Your task to perform on an android device: Open calendar and show me the third week of next month Image 0: 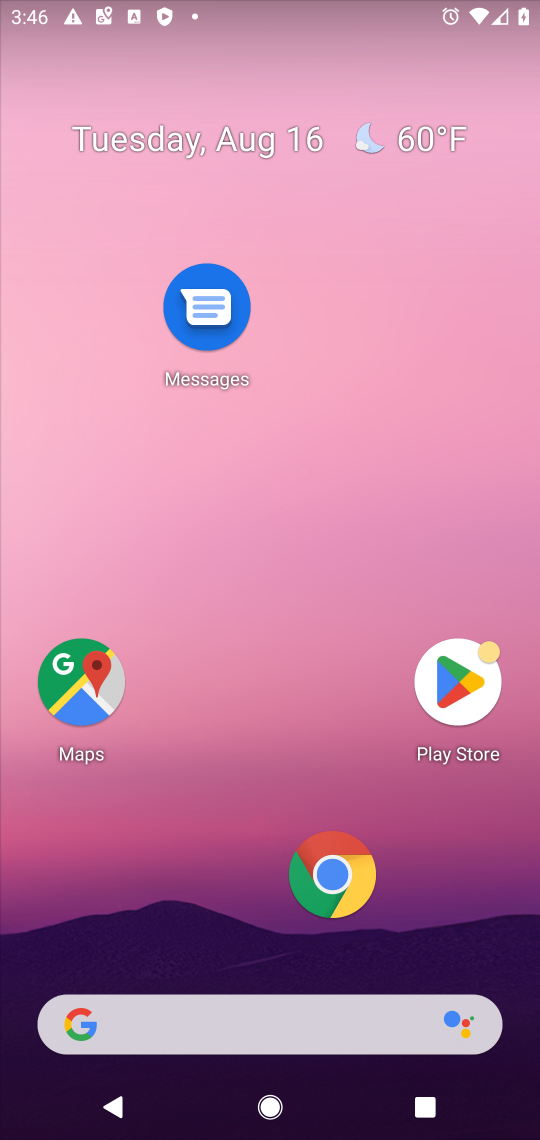
Step 0: drag from (264, 971) to (195, 263)
Your task to perform on an android device: Open calendar and show me the third week of next month Image 1: 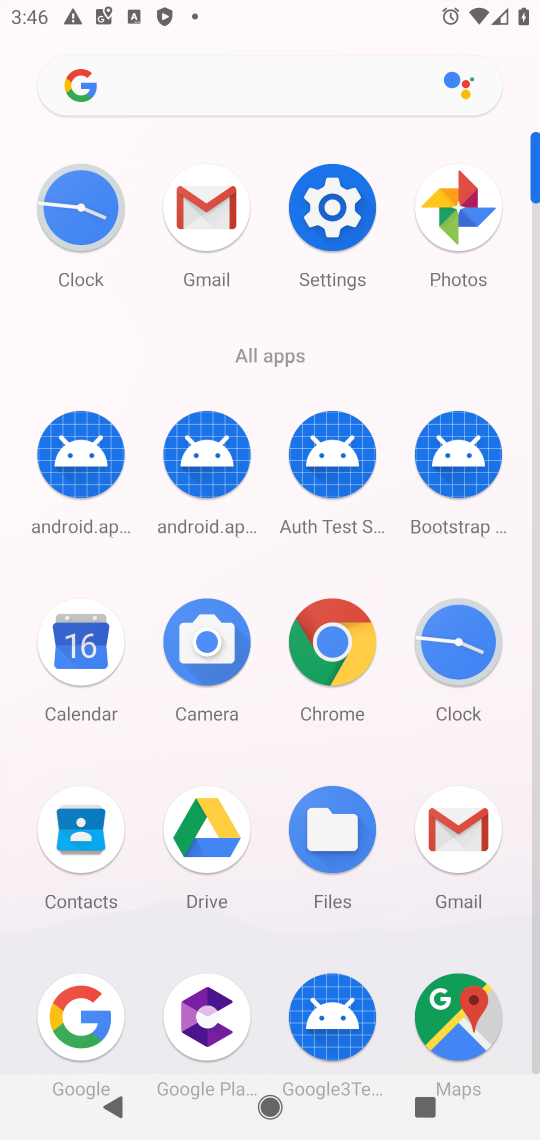
Step 1: click (65, 640)
Your task to perform on an android device: Open calendar and show me the third week of next month Image 2: 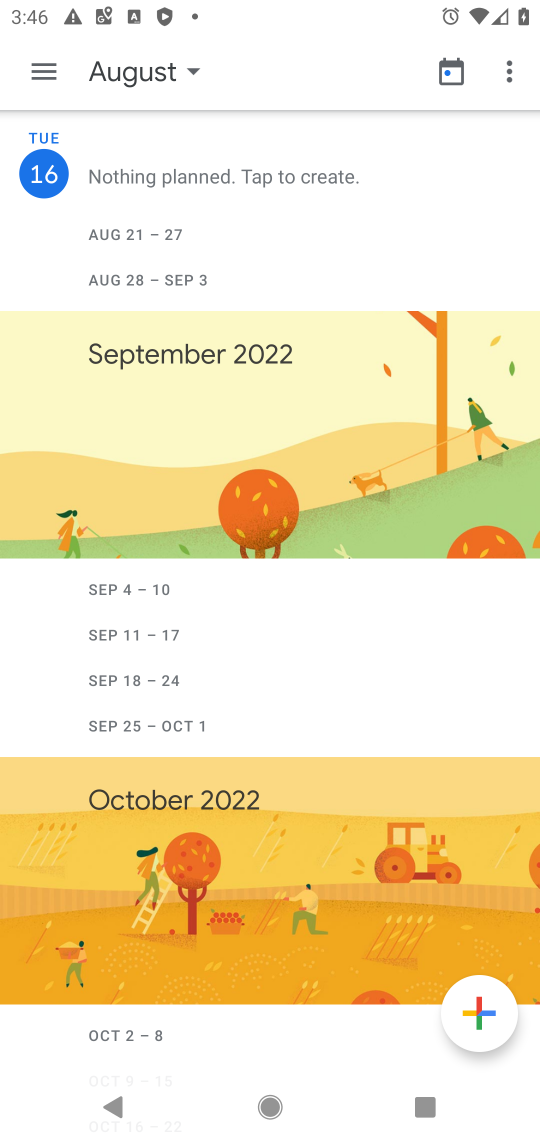
Step 2: click (110, 680)
Your task to perform on an android device: Open calendar and show me the third week of next month Image 3: 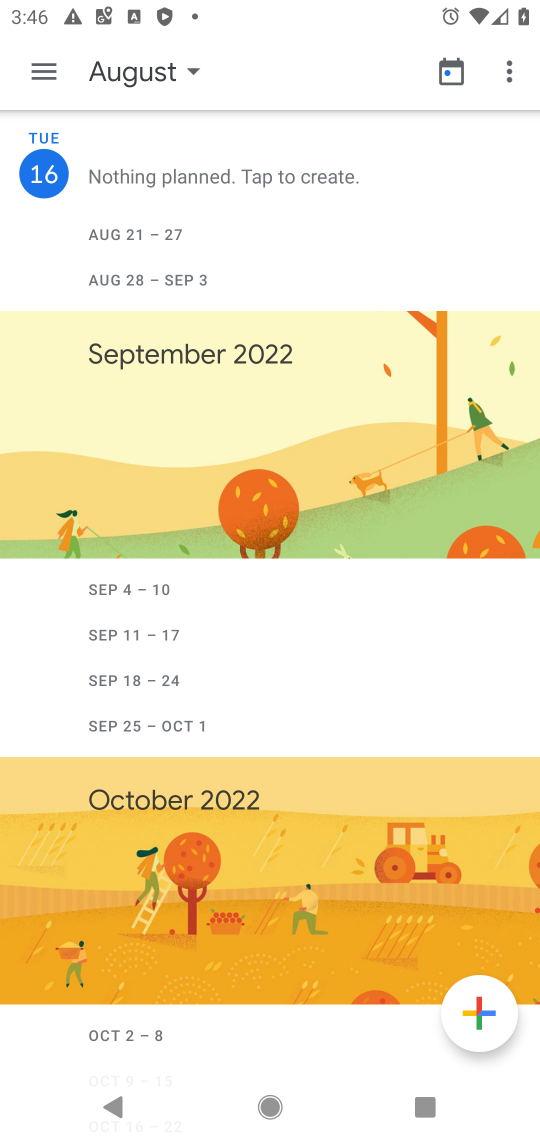
Step 3: click (93, 677)
Your task to perform on an android device: Open calendar and show me the third week of next month Image 4: 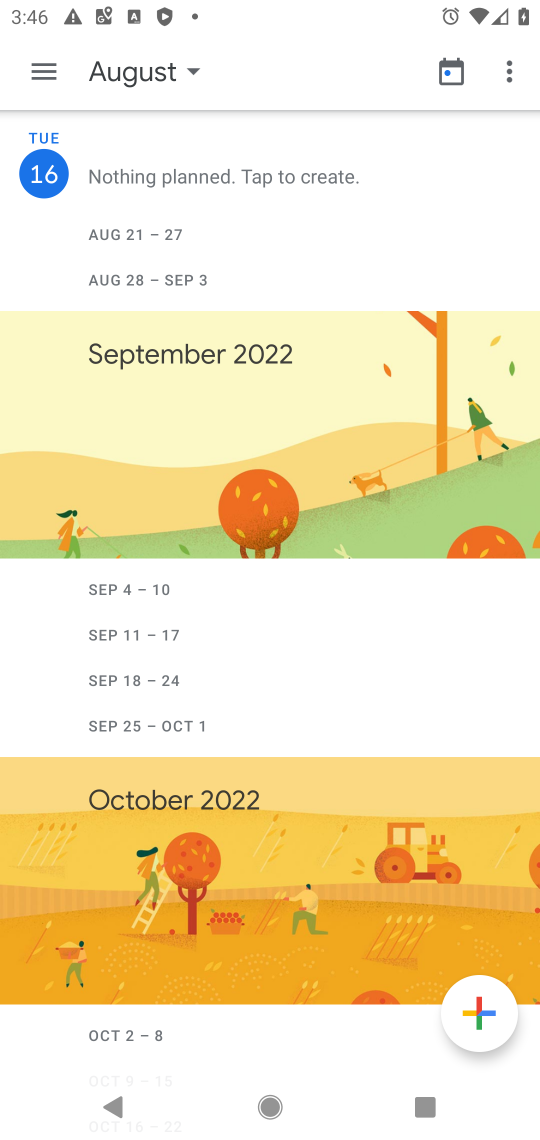
Step 4: click (93, 677)
Your task to perform on an android device: Open calendar and show me the third week of next month Image 5: 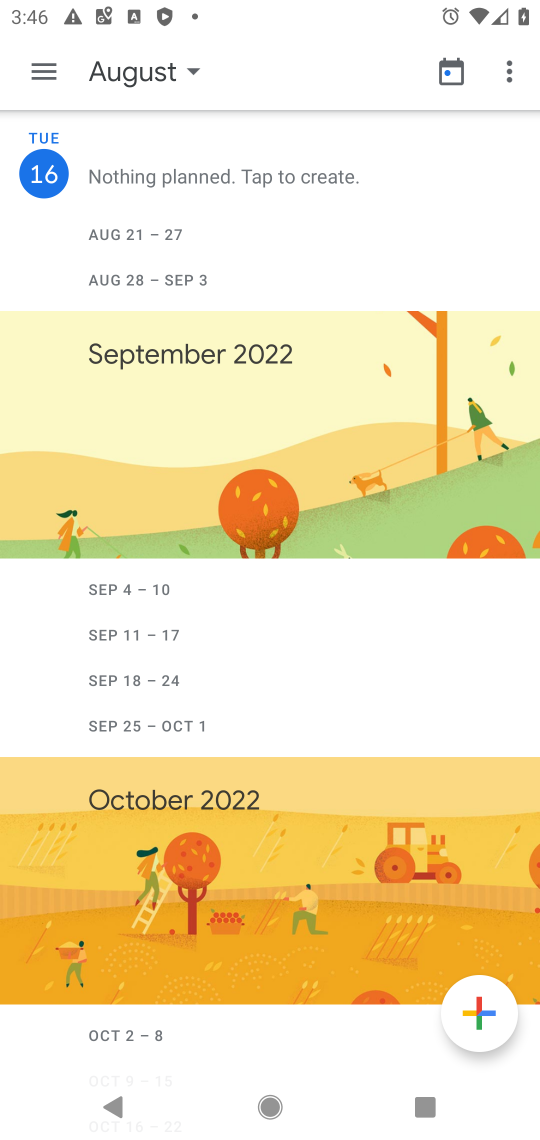
Step 5: click (168, 492)
Your task to perform on an android device: Open calendar and show me the third week of next month Image 6: 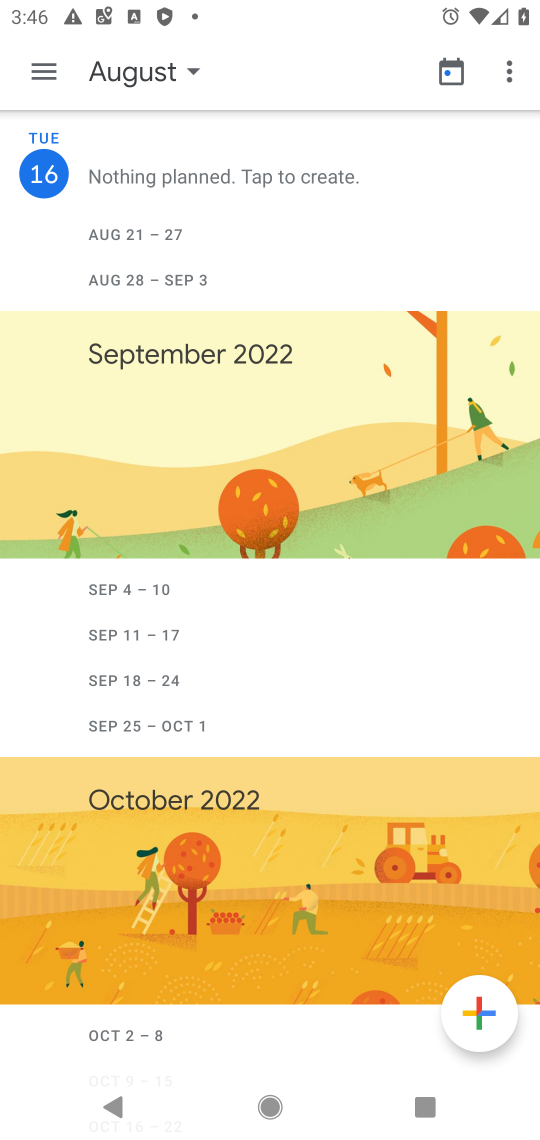
Step 6: click (164, 346)
Your task to perform on an android device: Open calendar and show me the third week of next month Image 7: 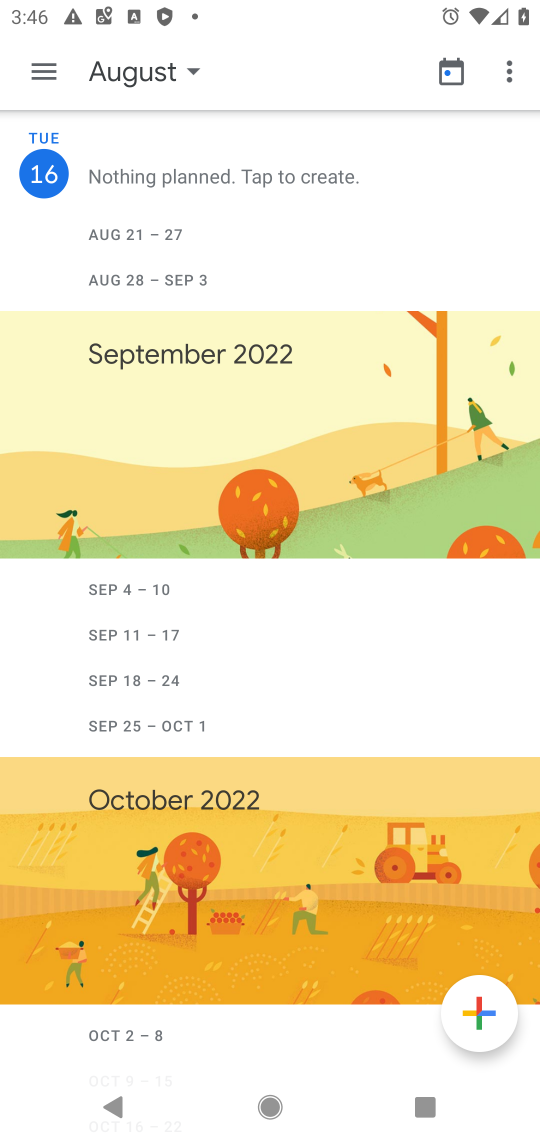
Step 7: click (129, 678)
Your task to perform on an android device: Open calendar and show me the third week of next month Image 8: 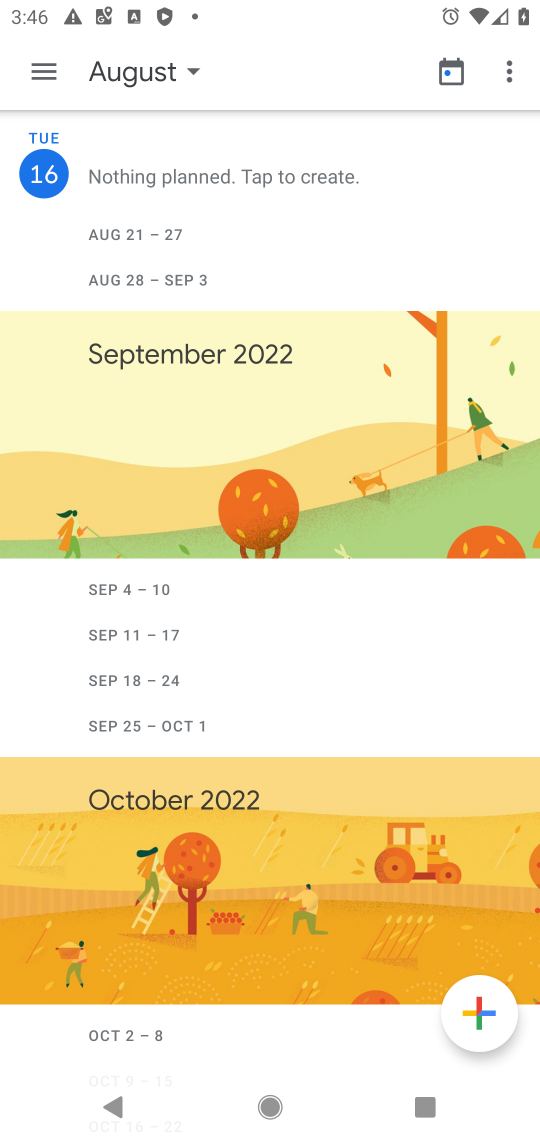
Step 8: task complete